Your task to perform on an android device: Open location settings Image 0: 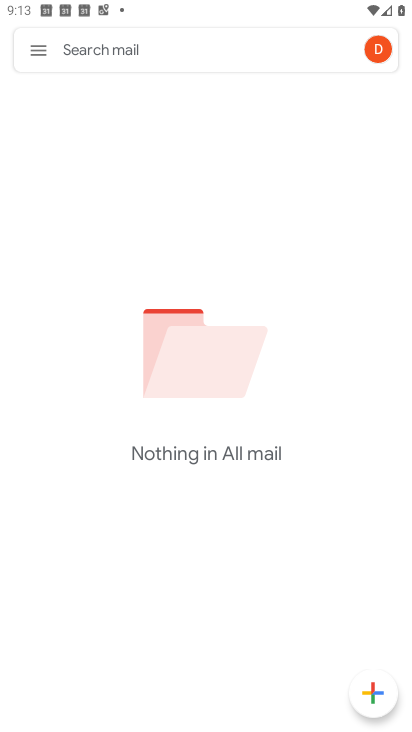
Step 0: press home button
Your task to perform on an android device: Open location settings Image 1: 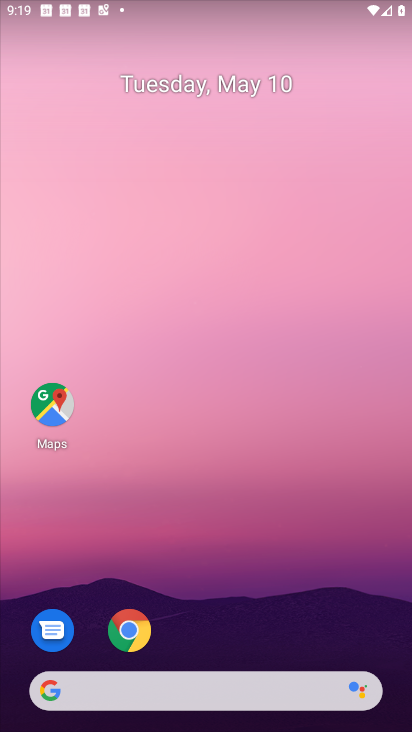
Step 1: drag from (187, 716) to (137, 58)
Your task to perform on an android device: Open location settings Image 2: 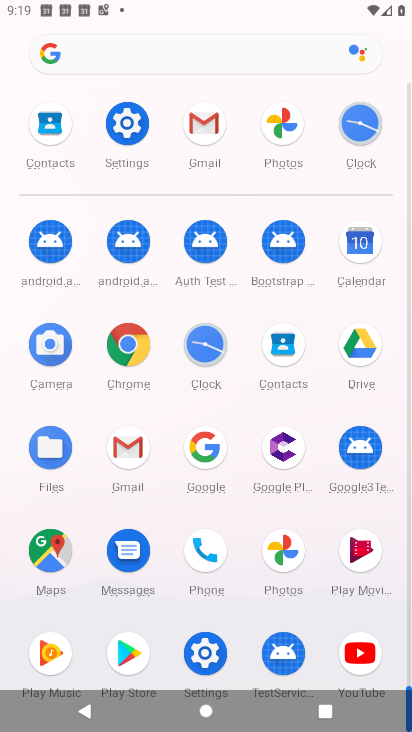
Step 2: click (122, 121)
Your task to perform on an android device: Open location settings Image 3: 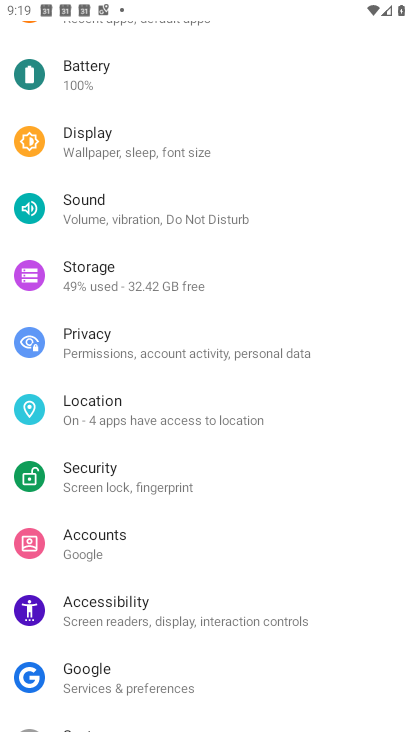
Step 3: click (134, 420)
Your task to perform on an android device: Open location settings Image 4: 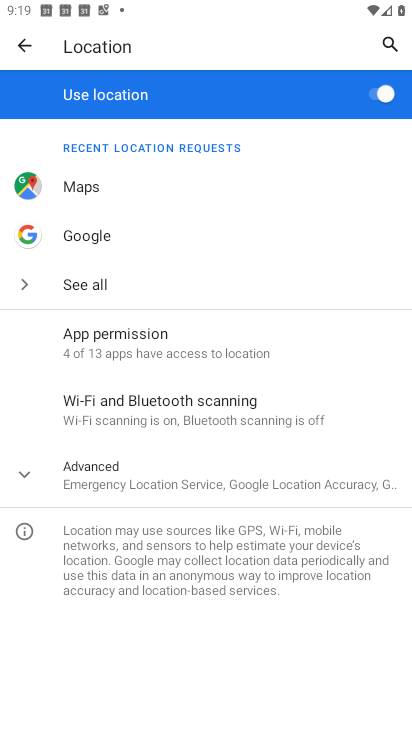
Step 4: task complete